Your task to perform on an android device: Go to battery settings Image 0: 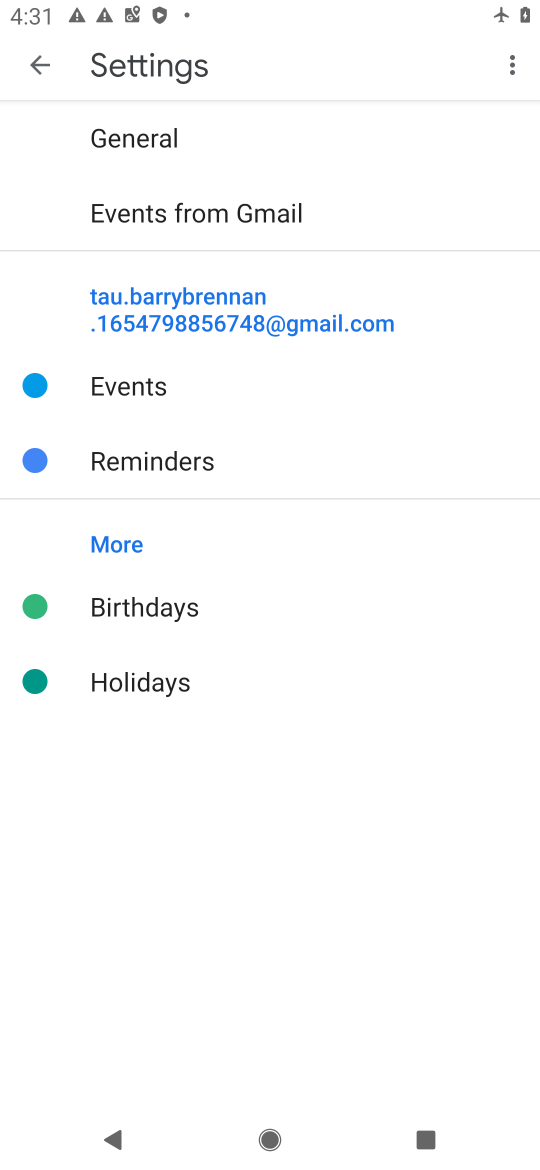
Step 0: press home button
Your task to perform on an android device: Go to battery settings Image 1: 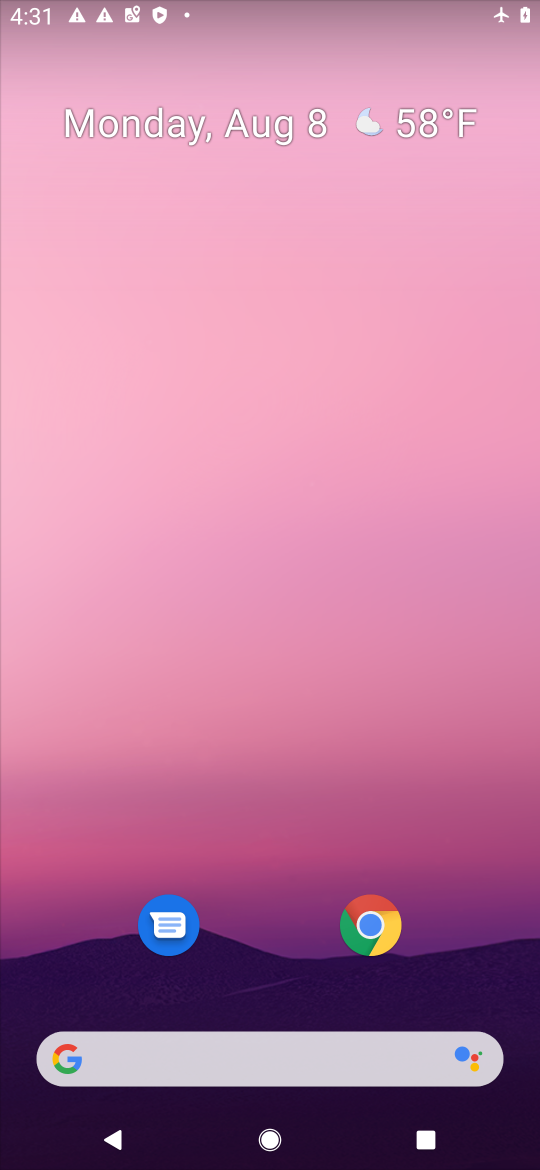
Step 1: drag from (304, 939) to (335, 109)
Your task to perform on an android device: Go to battery settings Image 2: 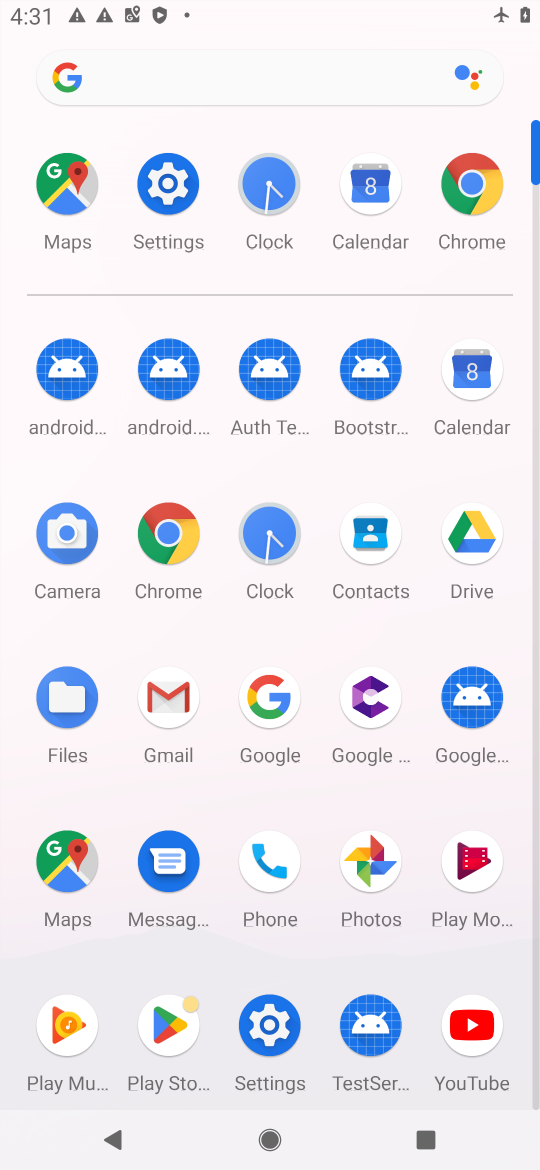
Step 2: click (279, 1028)
Your task to perform on an android device: Go to battery settings Image 3: 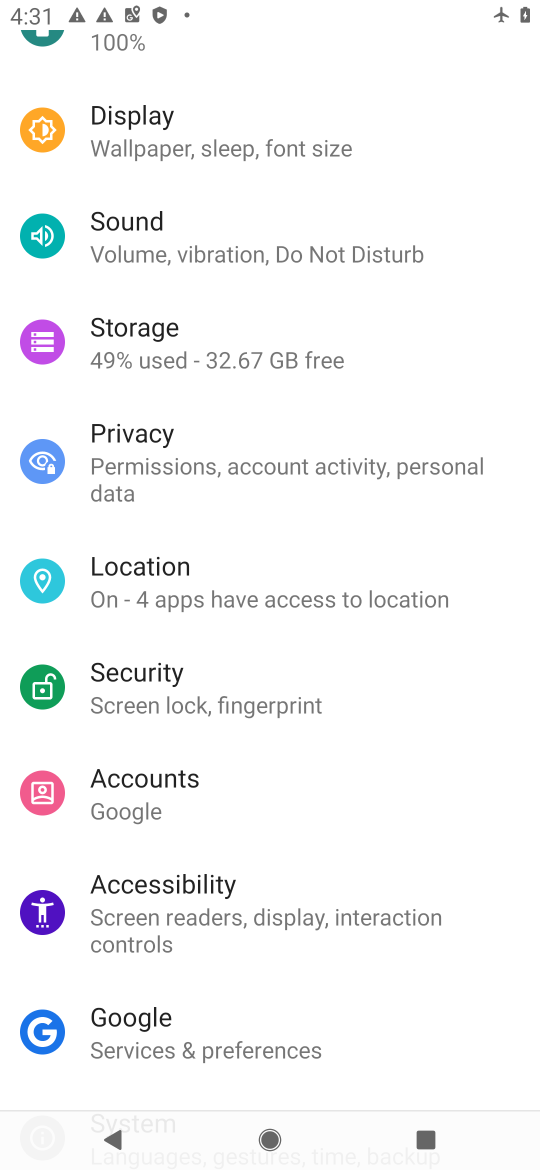
Step 3: drag from (148, 260) to (181, 821)
Your task to perform on an android device: Go to battery settings Image 4: 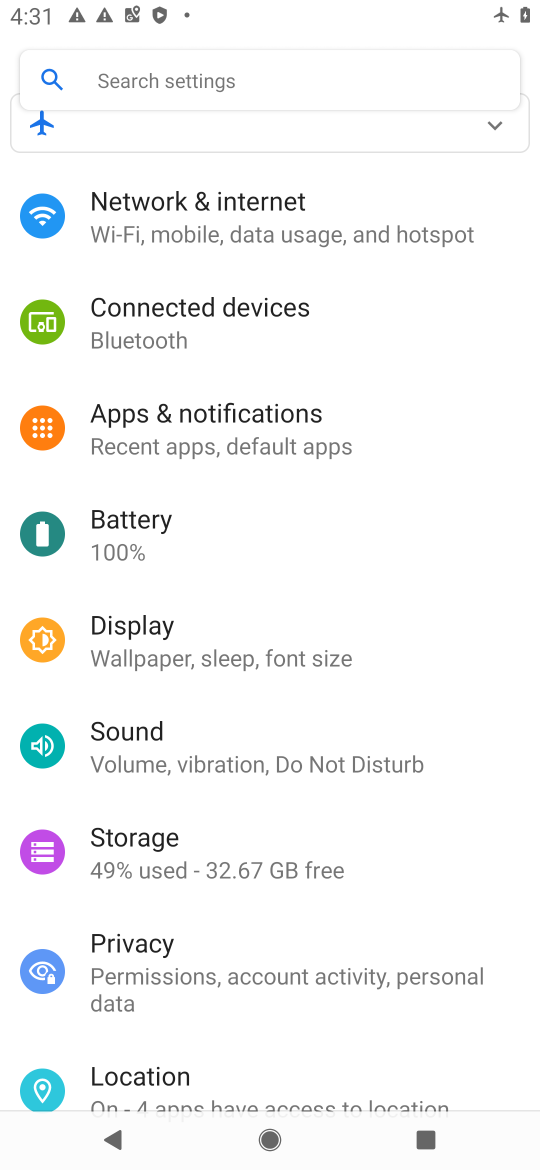
Step 4: click (122, 519)
Your task to perform on an android device: Go to battery settings Image 5: 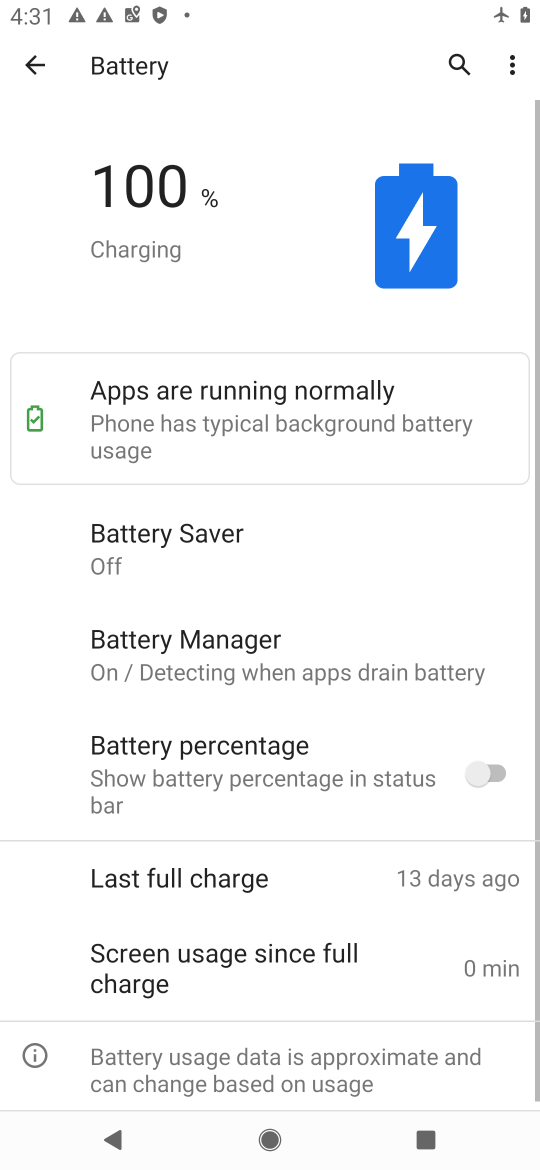
Step 5: task complete